Your task to perform on an android device: Show me productivity apps on the Play Store Image 0: 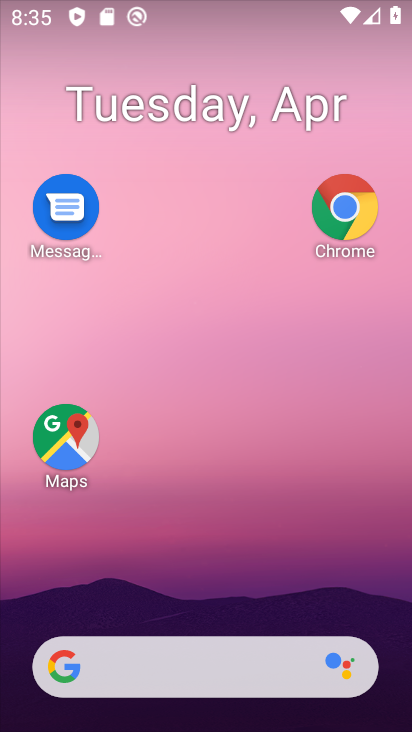
Step 0: drag from (214, 633) to (210, 75)
Your task to perform on an android device: Show me productivity apps on the Play Store Image 1: 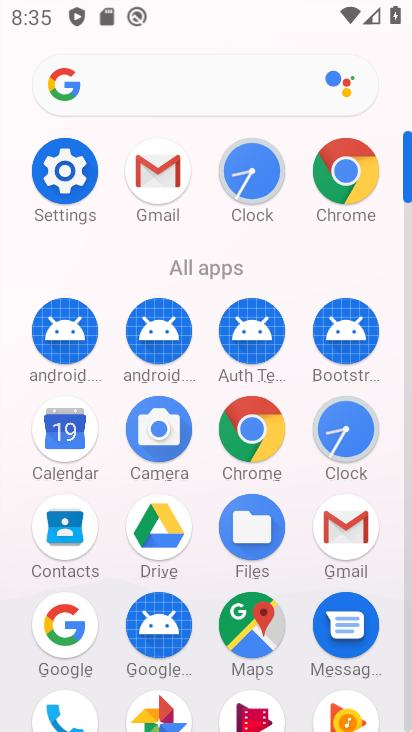
Step 1: drag from (211, 670) to (173, 216)
Your task to perform on an android device: Show me productivity apps on the Play Store Image 2: 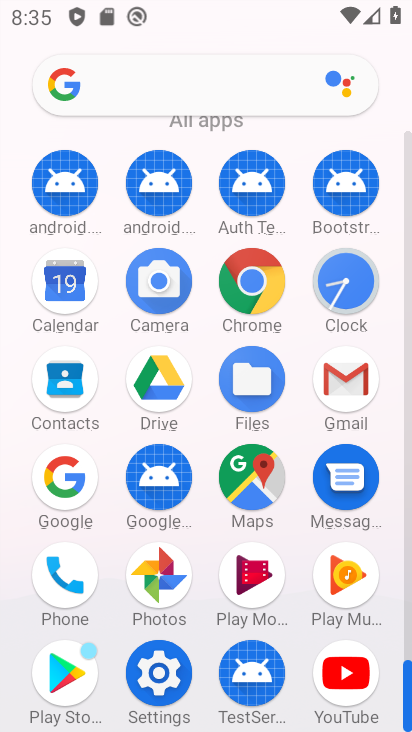
Step 2: click (75, 657)
Your task to perform on an android device: Show me productivity apps on the Play Store Image 3: 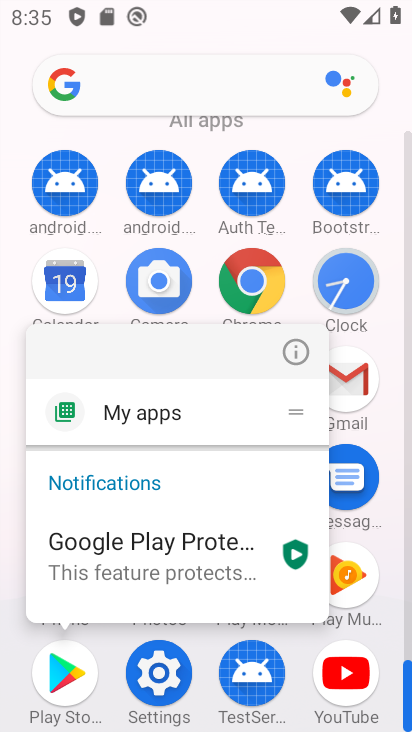
Step 3: click (70, 678)
Your task to perform on an android device: Show me productivity apps on the Play Store Image 4: 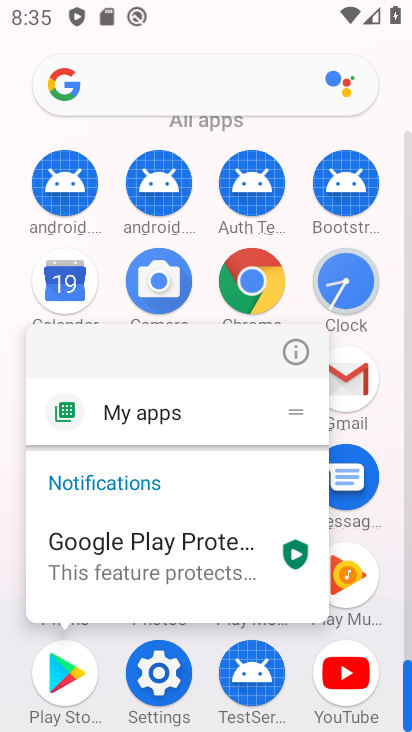
Step 4: click (70, 678)
Your task to perform on an android device: Show me productivity apps on the Play Store Image 5: 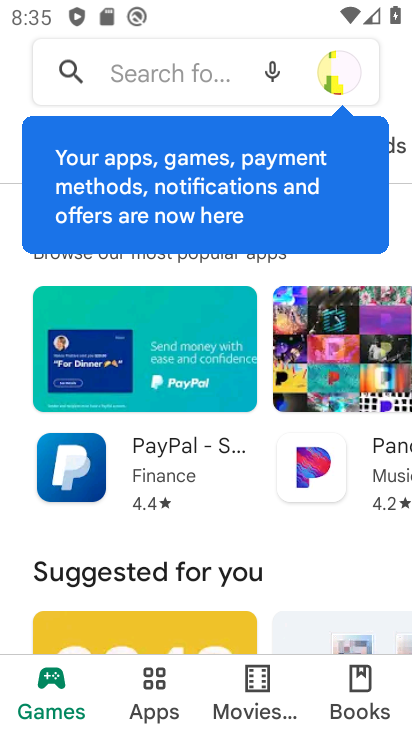
Step 5: click (165, 698)
Your task to perform on an android device: Show me productivity apps on the Play Store Image 6: 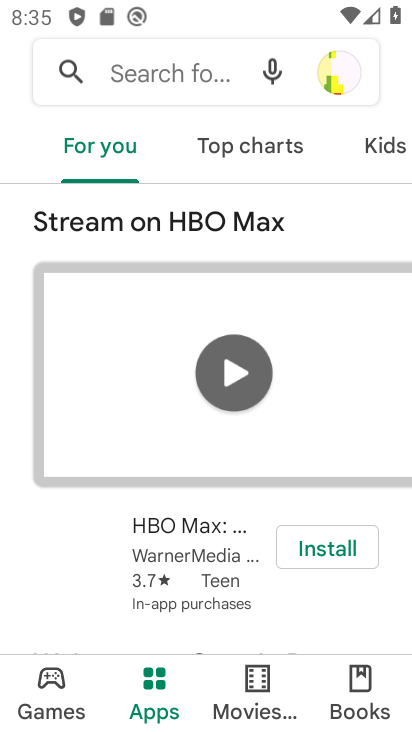
Step 6: drag from (361, 143) to (100, 140)
Your task to perform on an android device: Show me productivity apps on the Play Store Image 7: 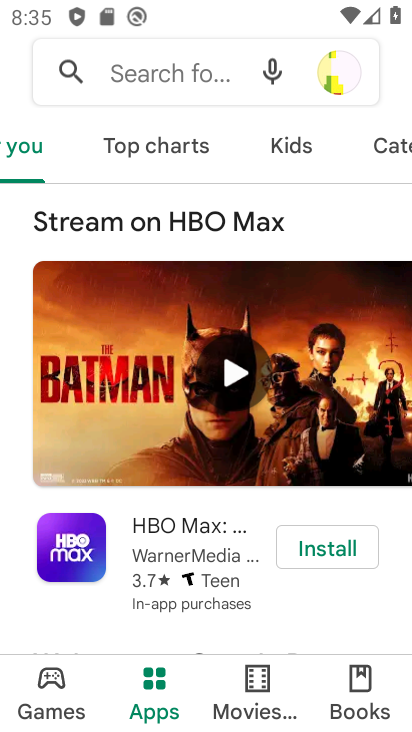
Step 7: drag from (358, 154) to (180, 140)
Your task to perform on an android device: Show me productivity apps on the Play Store Image 8: 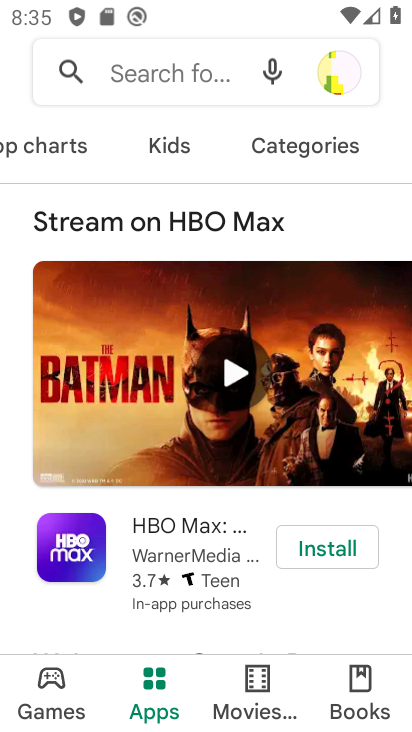
Step 8: click (260, 143)
Your task to perform on an android device: Show me productivity apps on the Play Store Image 9: 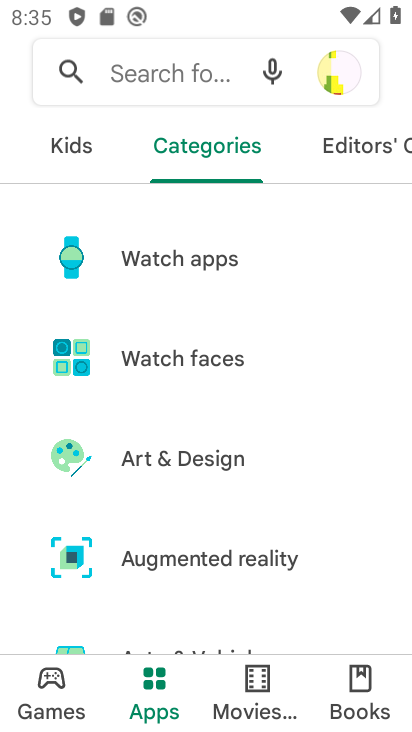
Step 9: drag from (258, 554) to (242, 30)
Your task to perform on an android device: Show me productivity apps on the Play Store Image 10: 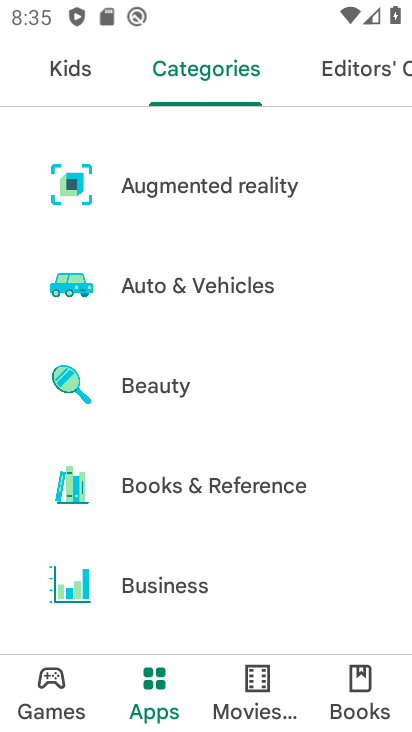
Step 10: drag from (230, 560) to (167, 28)
Your task to perform on an android device: Show me productivity apps on the Play Store Image 11: 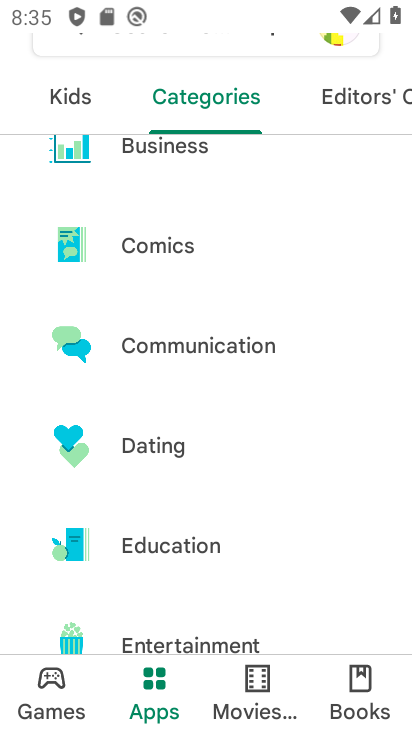
Step 11: drag from (191, 520) to (177, 44)
Your task to perform on an android device: Show me productivity apps on the Play Store Image 12: 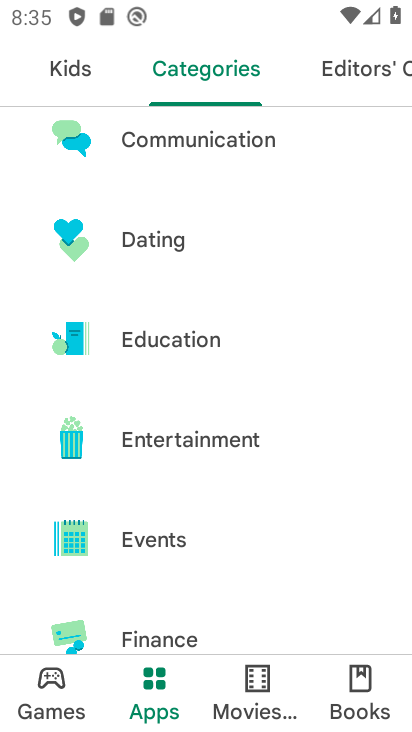
Step 12: drag from (194, 607) to (190, 50)
Your task to perform on an android device: Show me productivity apps on the Play Store Image 13: 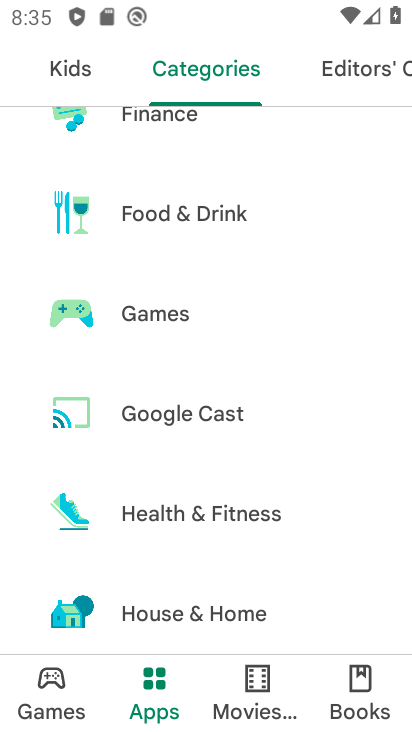
Step 13: drag from (247, 557) to (235, 3)
Your task to perform on an android device: Show me productivity apps on the Play Store Image 14: 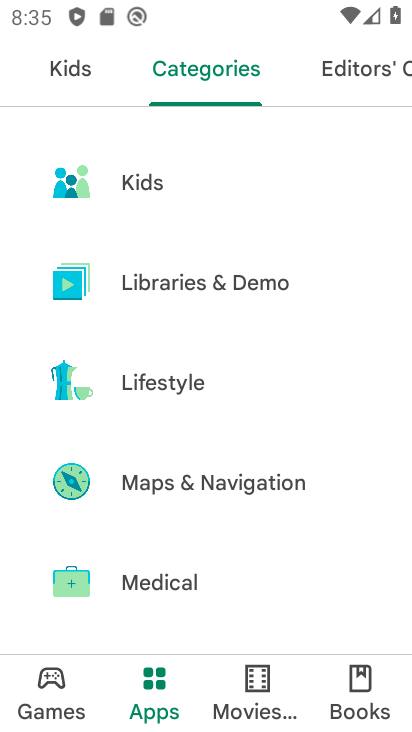
Step 14: drag from (218, 484) to (222, 28)
Your task to perform on an android device: Show me productivity apps on the Play Store Image 15: 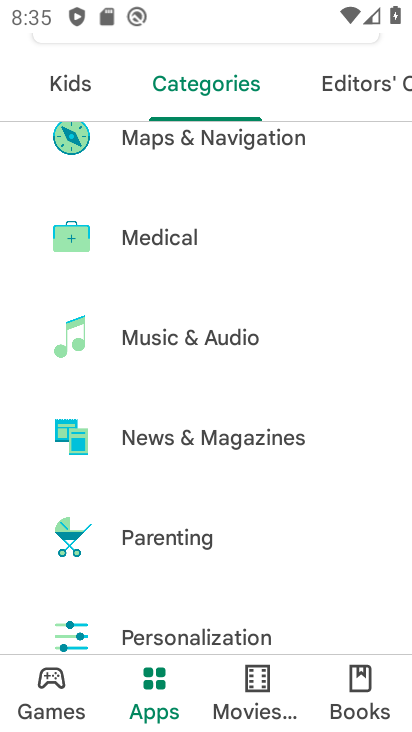
Step 15: drag from (271, 562) to (234, 224)
Your task to perform on an android device: Show me productivity apps on the Play Store Image 16: 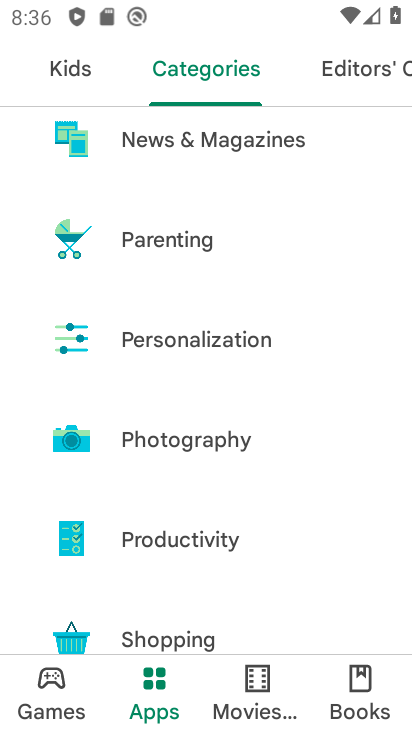
Step 16: click (186, 531)
Your task to perform on an android device: Show me productivity apps on the Play Store Image 17: 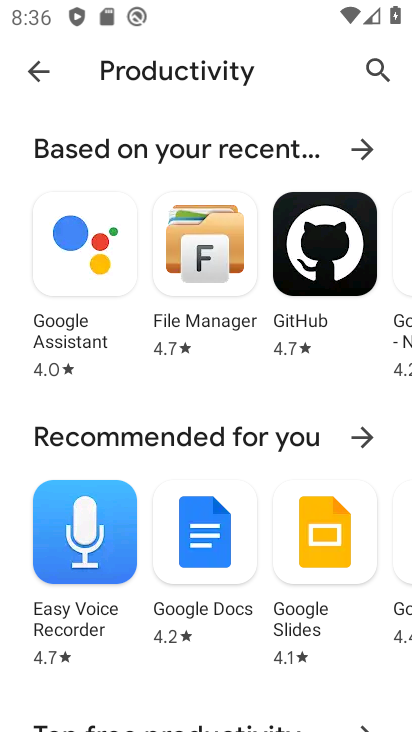
Step 17: task complete